Your task to perform on an android device: change text size in settings app Image 0: 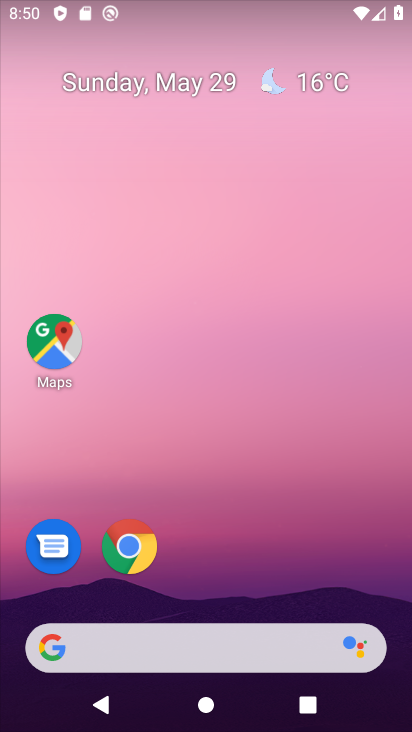
Step 0: drag from (259, 518) to (234, 18)
Your task to perform on an android device: change text size in settings app Image 1: 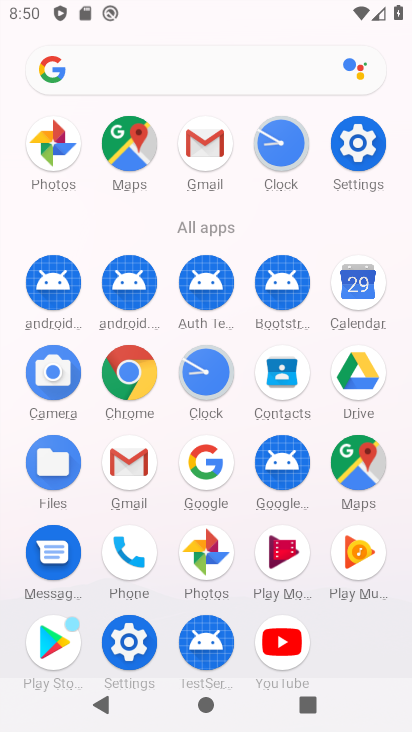
Step 1: click (350, 143)
Your task to perform on an android device: change text size in settings app Image 2: 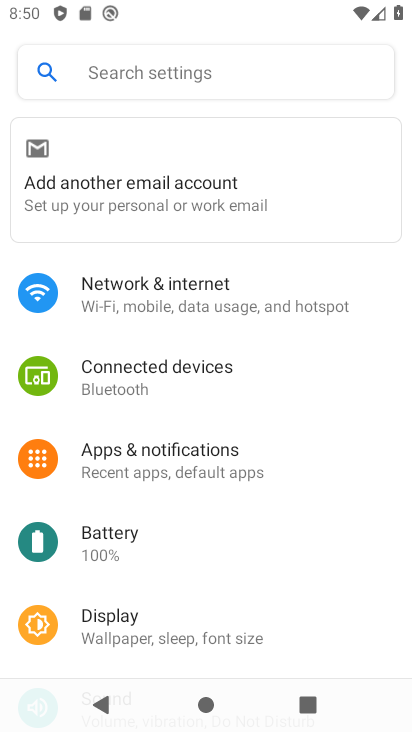
Step 2: click (151, 621)
Your task to perform on an android device: change text size in settings app Image 3: 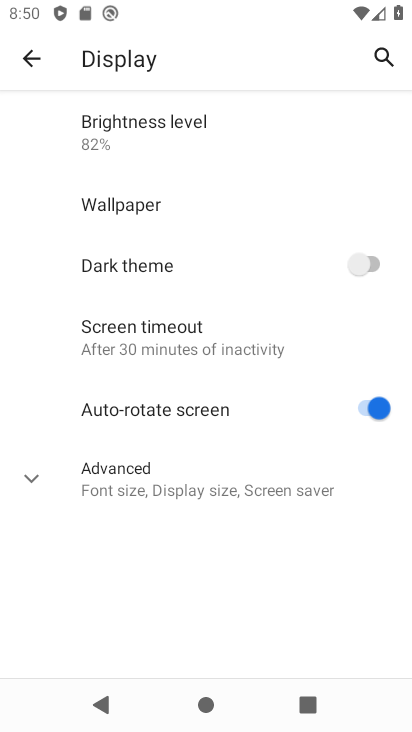
Step 3: click (169, 468)
Your task to perform on an android device: change text size in settings app Image 4: 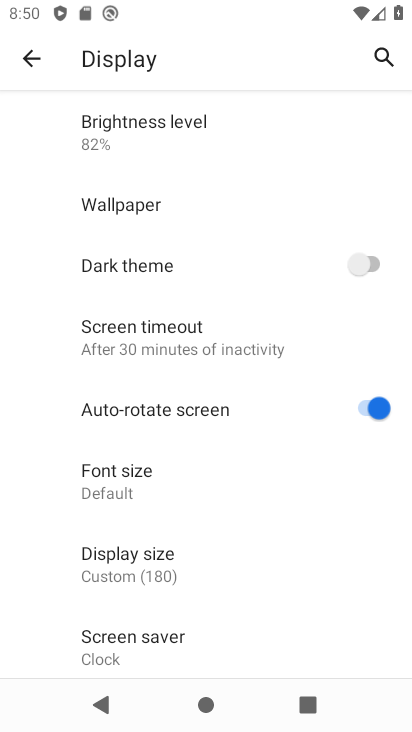
Step 4: click (170, 469)
Your task to perform on an android device: change text size in settings app Image 5: 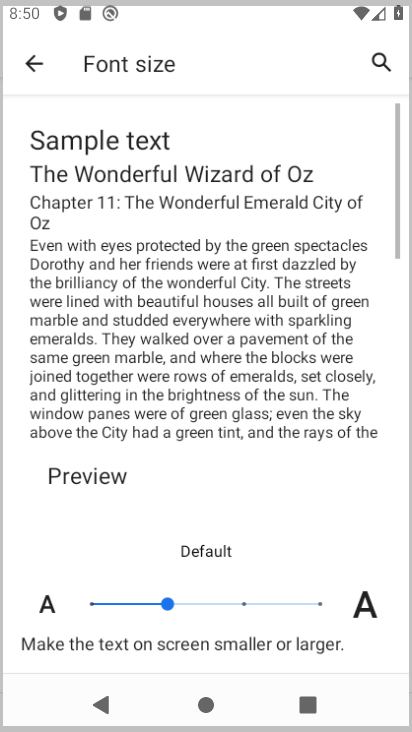
Step 5: task complete